Your task to perform on an android device: toggle show notifications on the lock screen Image 0: 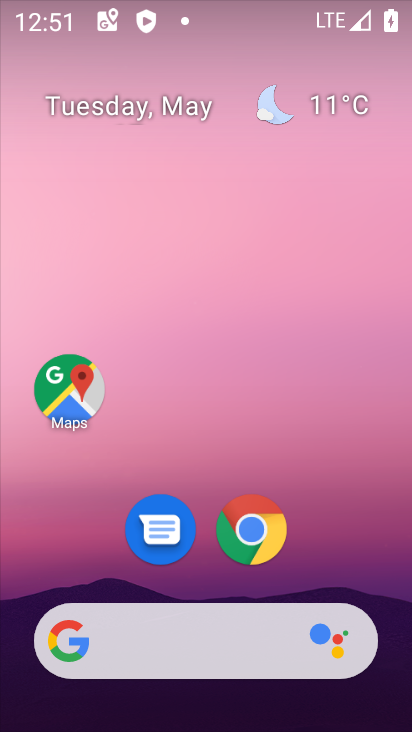
Step 0: drag from (217, 690) to (201, 209)
Your task to perform on an android device: toggle show notifications on the lock screen Image 1: 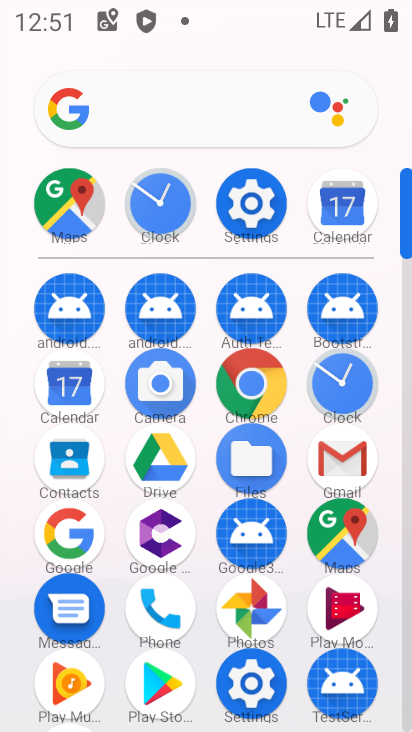
Step 1: click (248, 198)
Your task to perform on an android device: toggle show notifications on the lock screen Image 2: 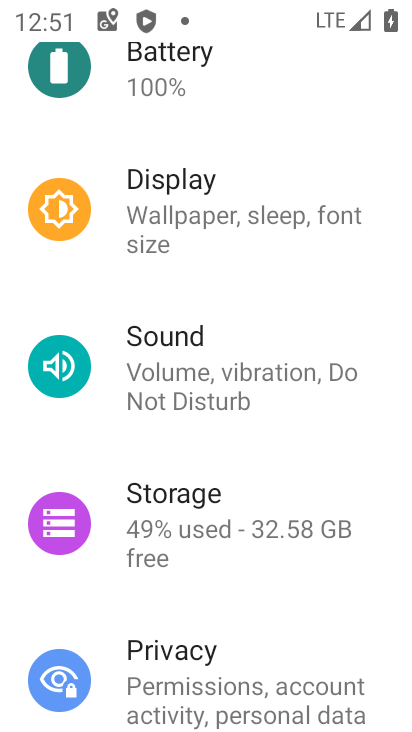
Step 2: drag from (191, 610) to (204, 682)
Your task to perform on an android device: toggle show notifications on the lock screen Image 3: 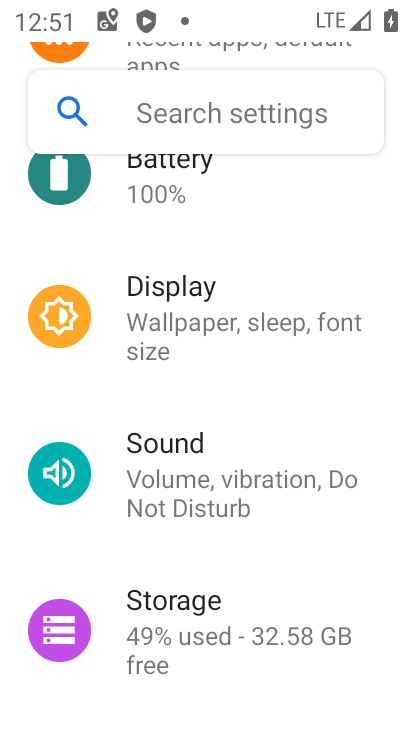
Step 3: drag from (231, 210) to (249, 467)
Your task to perform on an android device: toggle show notifications on the lock screen Image 4: 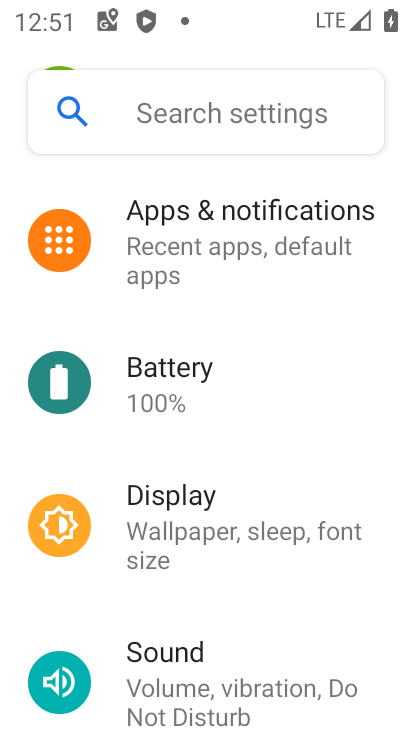
Step 4: click (182, 258)
Your task to perform on an android device: toggle show notifications on the lock screen Image 5: 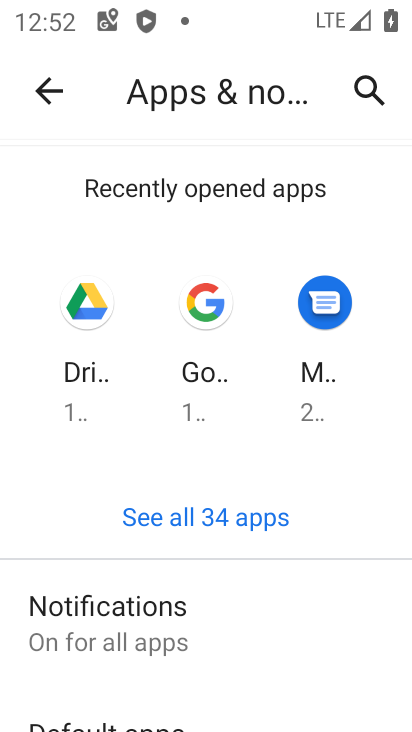
Step 5: click (112, 629)
Your task to perform on an android device: toggle show notifications on the lock screen Image 6: 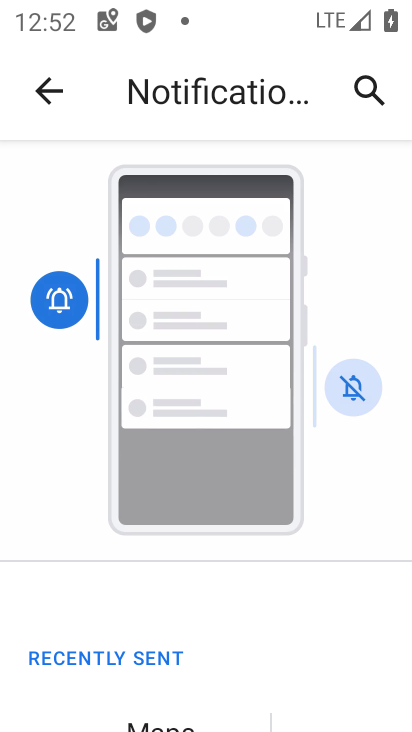
Step 6: drag from (152, 684) to (154, 251)
Your task to perform on an android device: toggle show notifications on the lock screen Image 7: 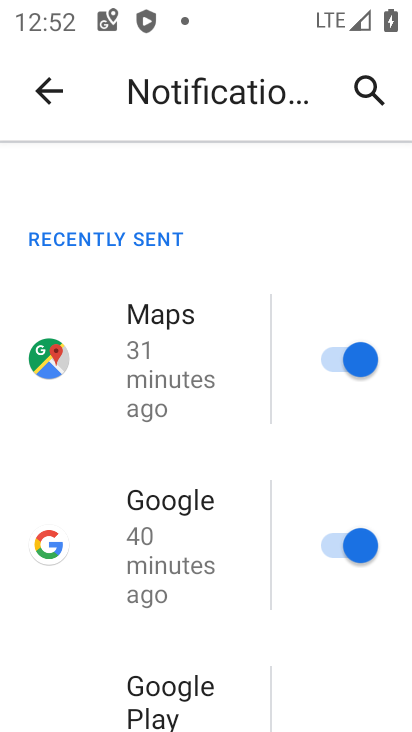
Step 7: drag from (223, 696) to (234, 211)
Your task to perform on an android device: toggle show notifications on the lock screen Image 8: 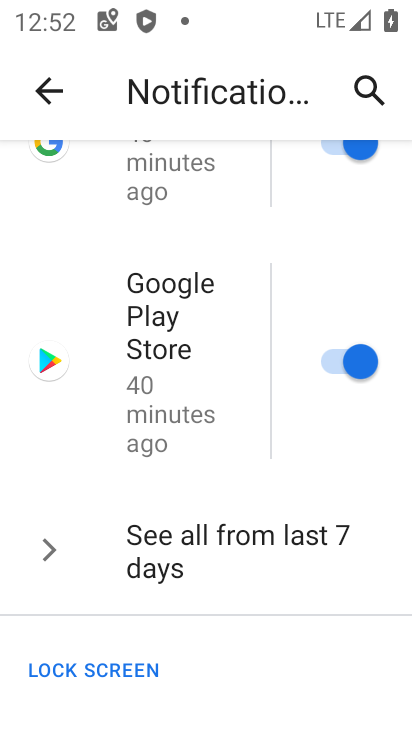
Step 8: drag from (205, 692) to (212, 318)
Your task to perform on an android device: toggle show notifications on the lock screen Image 9: 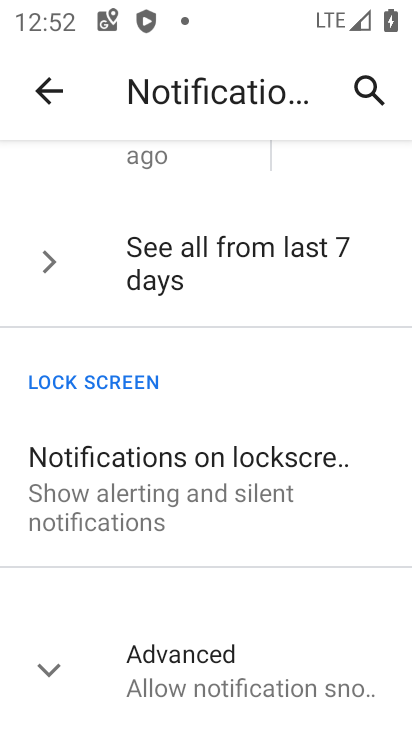
Step 9: drag from (167, 675) to (176, 397)
Your task to perform on an android device: toggle show notifications on the lock screen Image 10: 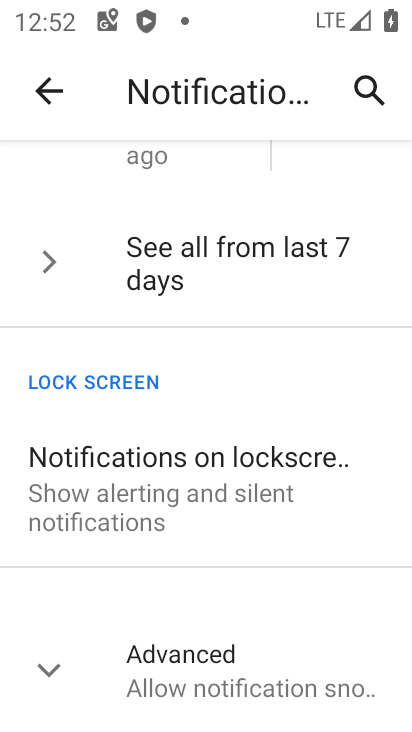
Step 10: click (127, 483)
Your task to perform on an android device: toggle show notifications on the lock screen Image 11: 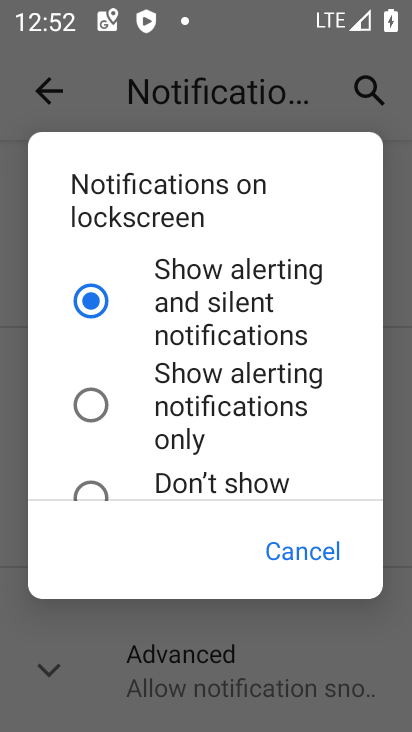
Step 11: drag from (196, 439) to (203, 326)
Your task to perform on an android device: toggle show notifications on the lock screen Image 12: 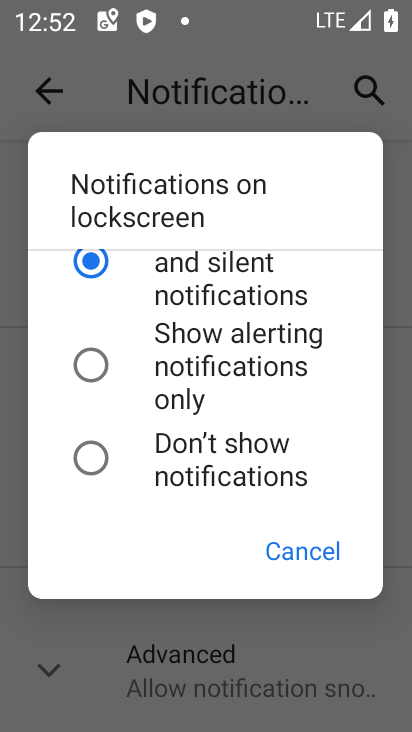
Step 12: click (91, 368)
Your task to perform on an android device: toggle show notifications on the lock screen Image 13: 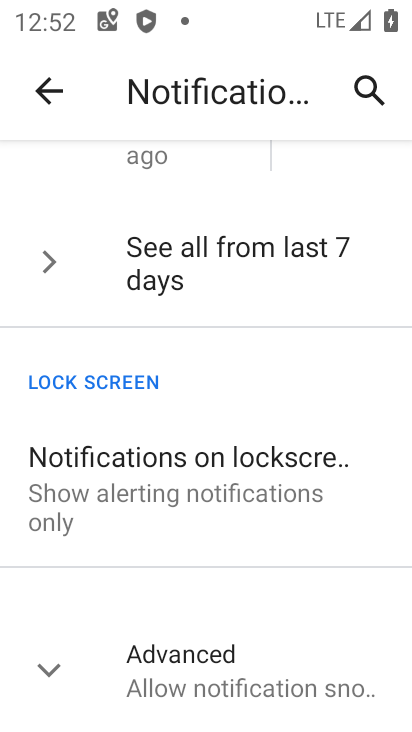
Step 13: task complete